Your task to perform on an android device: delete browsing data in the chrome app Image 0: 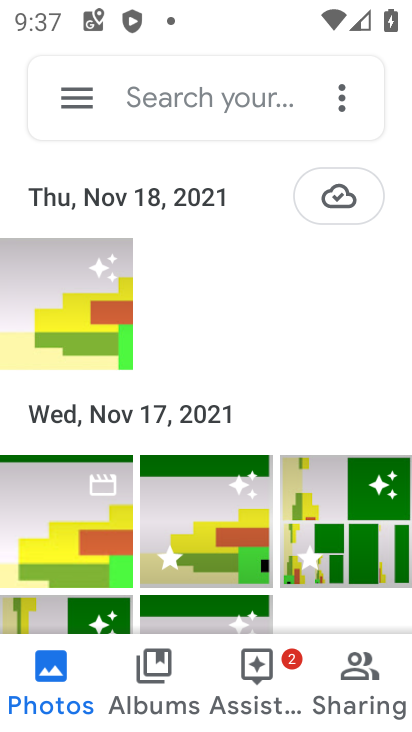
Step 0: press home button
Your task to perform on an android device: delete browsing data in the chrome app Image 1: 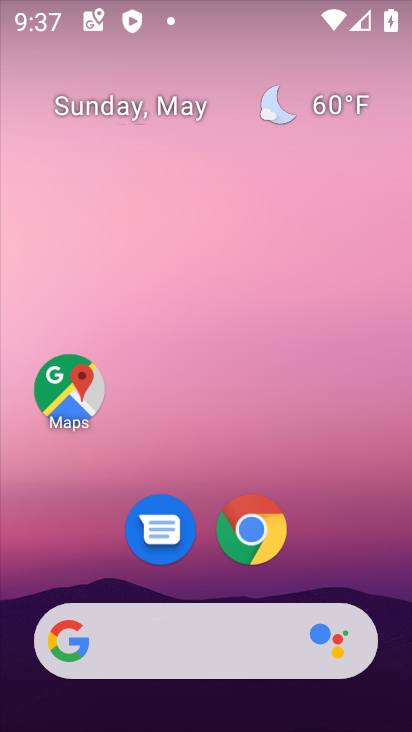
Step 1: drag from (383, 578) to (376, 170)
Your task to perform on an android device: delete browsing data in the chrome app Image 2: 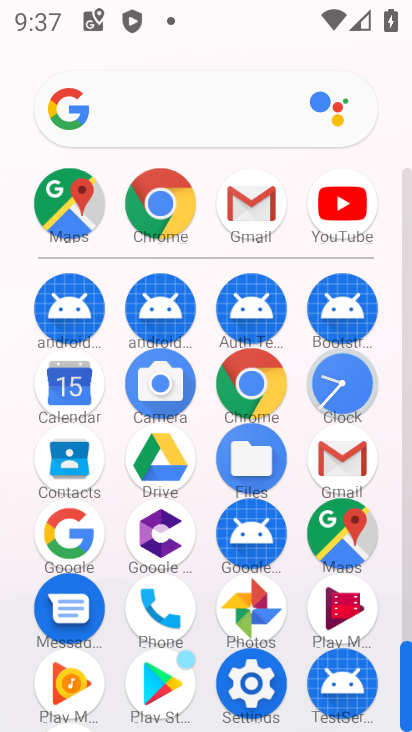
Step 2: click (269, 379)
Your task to perform on an android device: delete browsing data in the chrome app Image 3: 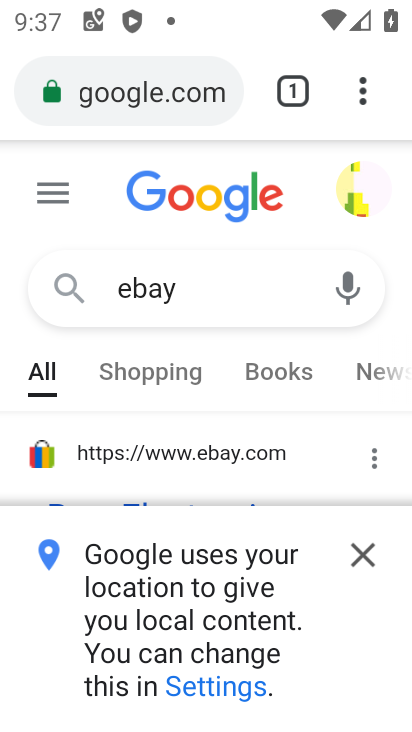
Step 3: click (361, 96)
Your task to perform on an android device: delete browsing data in the chrome app Image 4: 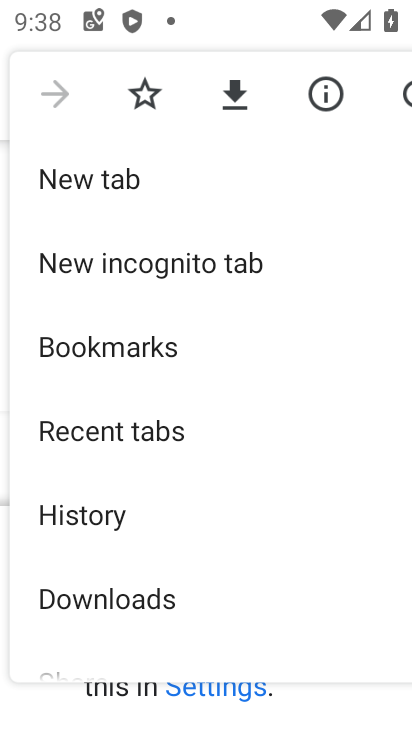
Step 4: drag from (326, 561) to (338, 396)
Your task to perform on an android device: delete browsing data in the chrome app Image 5: 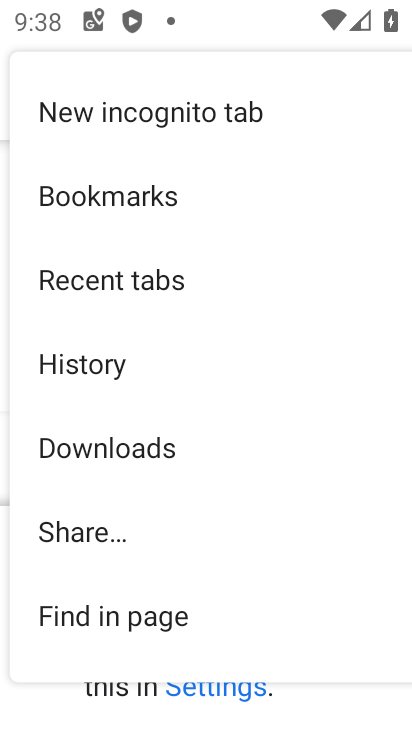
Step 5: drag from (338, 556) to (330, 380)
Your task to perform on an android device: delete browsing data in the chrome app Image 6: 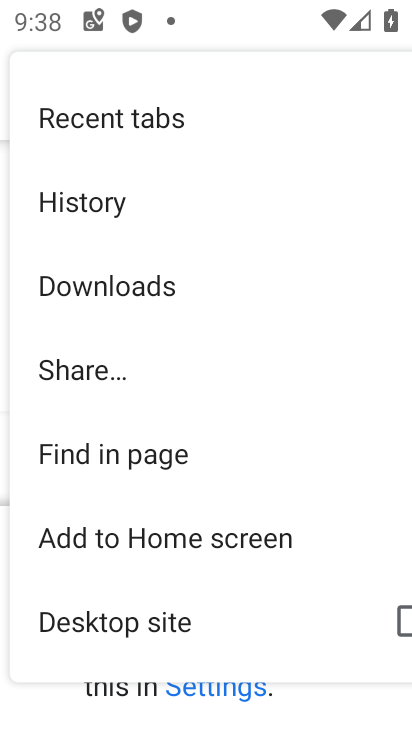
Step 6: drag from (309, 623) to (293, 360)
Your task to perform on an android device: delete browsing data in the chrome app Image 7: 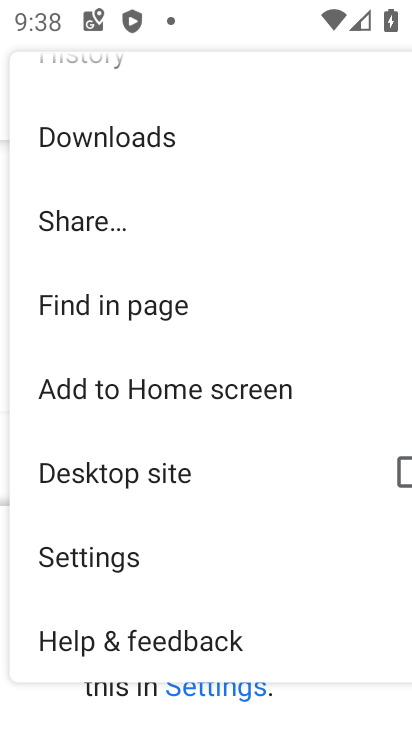
Step 7: click (145, 562)
Your task to perform on an android device: delete browsing data in the chrome app Image 8: 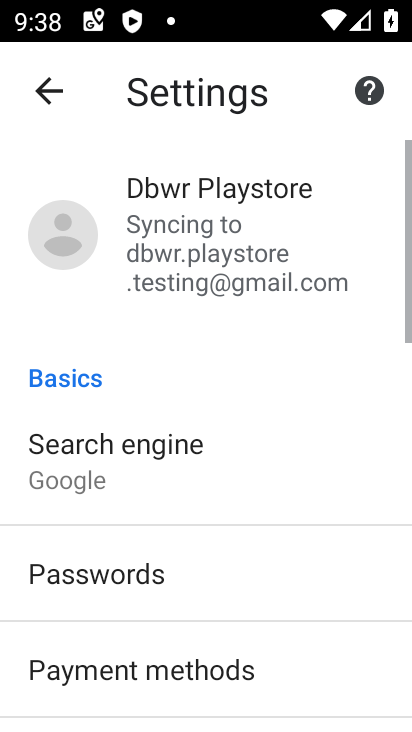
Step 8: drag from (282, 607) to (289, 479)
Your task to perform on an android device: delete browsing data in the chrome app Image 9: 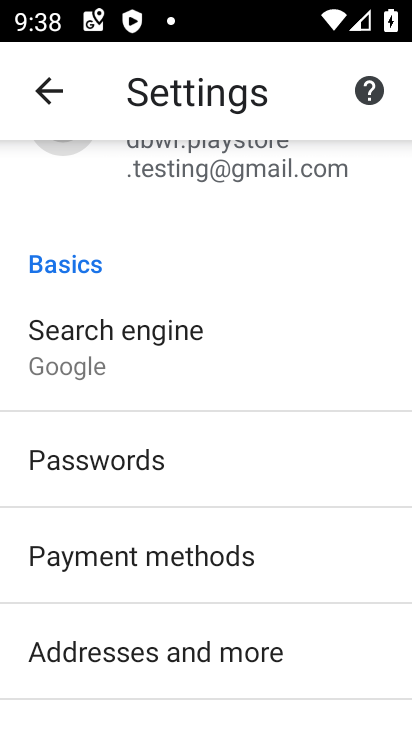
Step 9: drag from (281, 665) to (284, 530)
Your task to perform on an android device: delete browsing data in the chrome app Image 10: 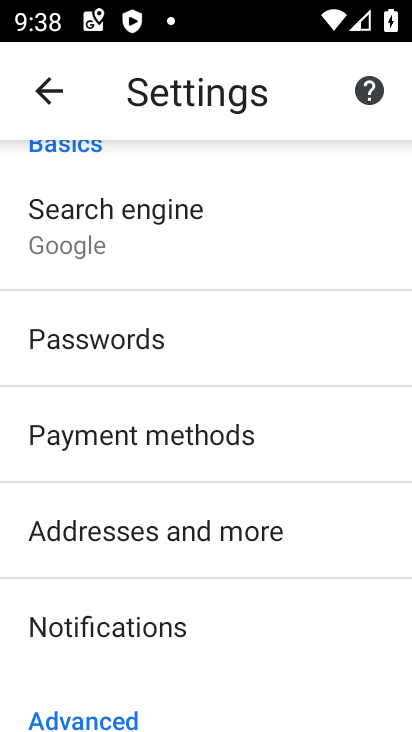
Step 10: drag from (293, 638) to (304, 458)
Your task to perform on an android device: delete browsing data in the chrome app Image 11: 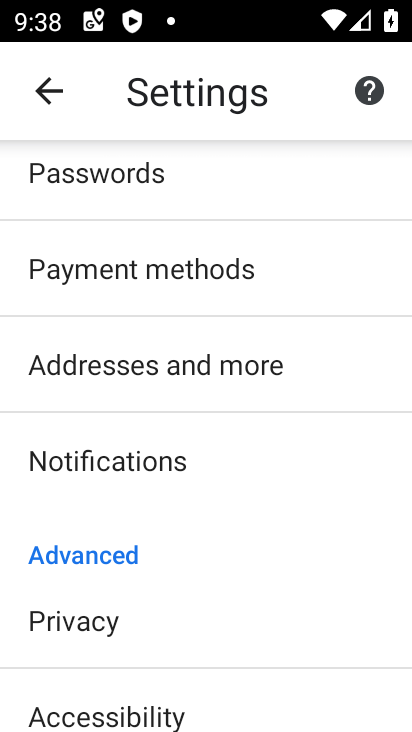
Step 11: drag from (291, 621) to (293, 577)
Your task to perform on an android device: delete browsing data in the chrome app Image 12: 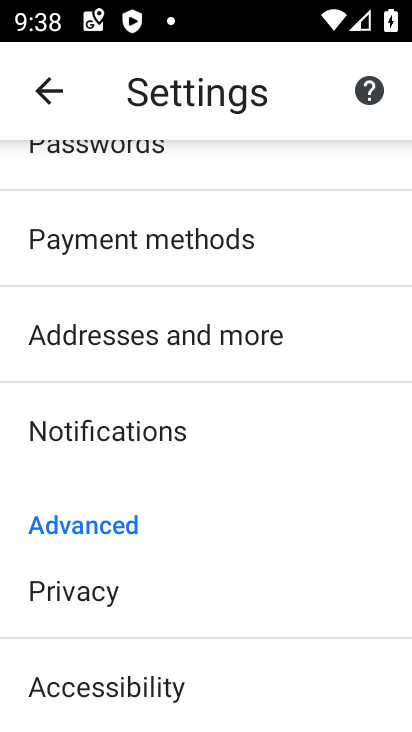
Step 12: drag from (315, 270) to (301, 475)
Your task to perform on an android device: delete browsing data in the chrome app Image 13: 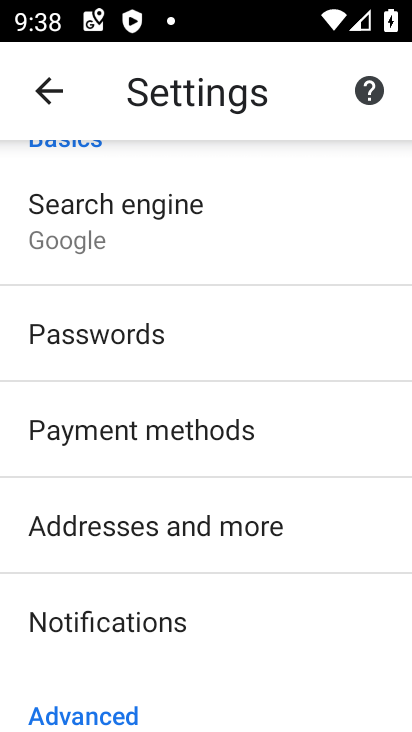
Step 13: drag from (287, 299) to (284, 477)
Your task to perform on an android device: delete browsing data in the chrome app Image 14: 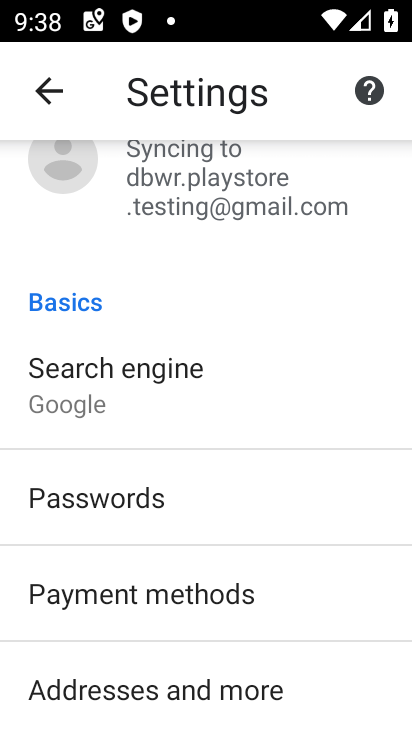
Step 14: drag from (296, 308) to (300, 519)
Your task to perform on an android device: delete browsing data in the chrome app Image 15: 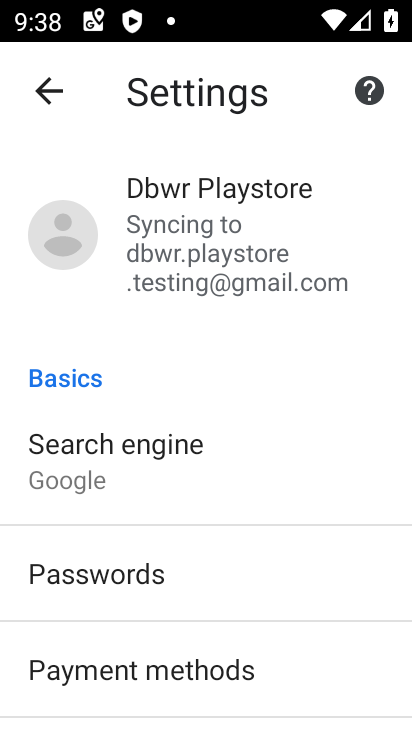
Step 15: drag from (313, 631) to (315, 475)
Your task to perform on an android device: delete browsing data in the chrome app Image 16: 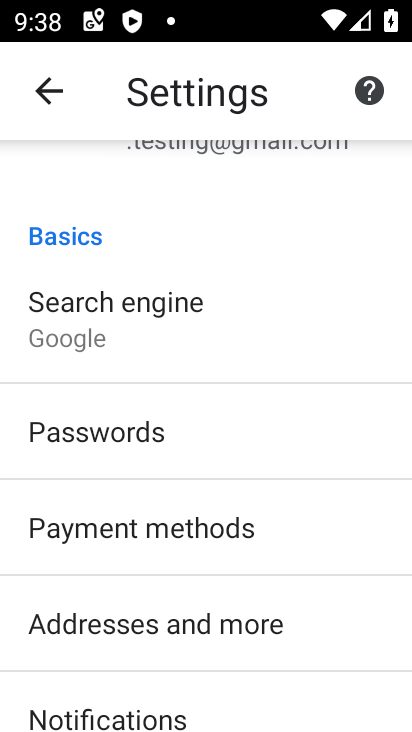
Step 16: drag from (313, 677) to (320, 398)
Your task to perform on an android device: delete browsing data in the chrome app Image 17: 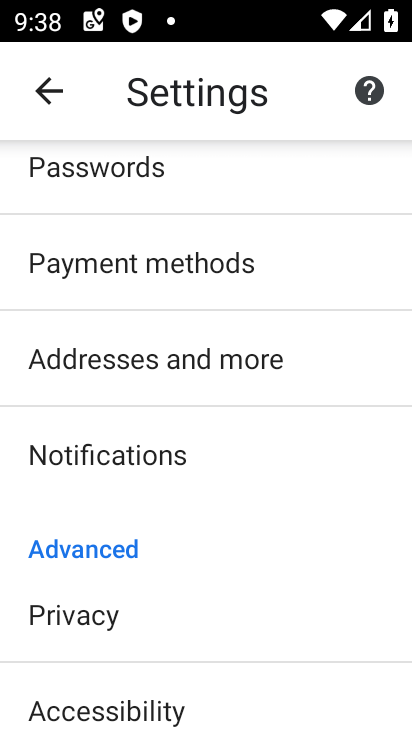
Step 17: click (155, 629)
Your task to perform on an android device: delete browsing data in the chrome app Image 18: 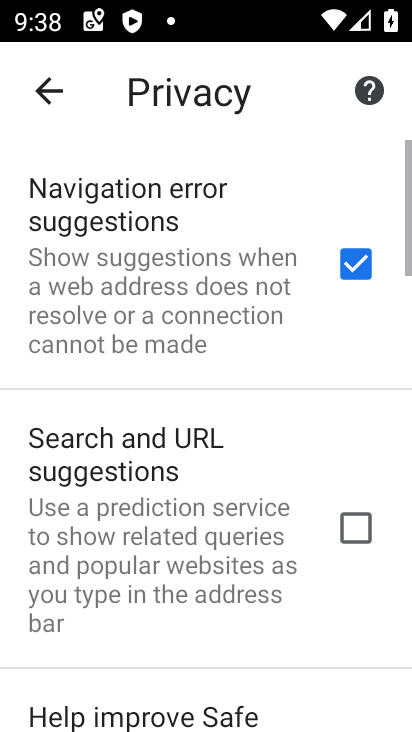
Step 18: drag from (282, 646) to (301, 374)
Your task to perform on an android device: delete browsing data in the chrome app Image 19: 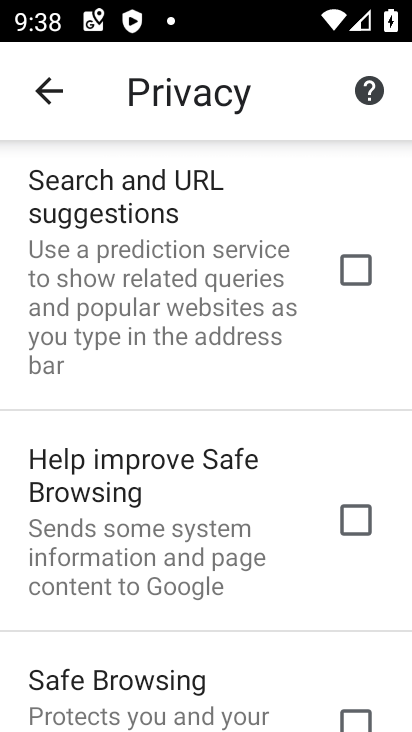
Step 19: drag from (280, 622) to (285, 453)
Your task to perform on an android device: delete browsing data in the chrome app Image 20: 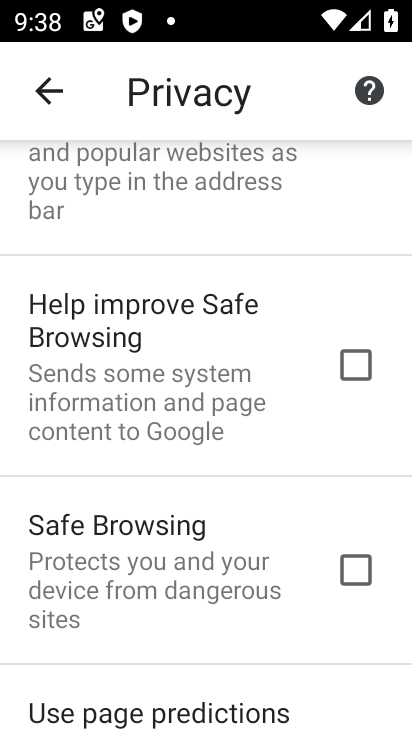
Step 20: drag from (295, 626) to (301, 417)
Your task to perform on an android device: delete browsing data in the chrome app Image 21: 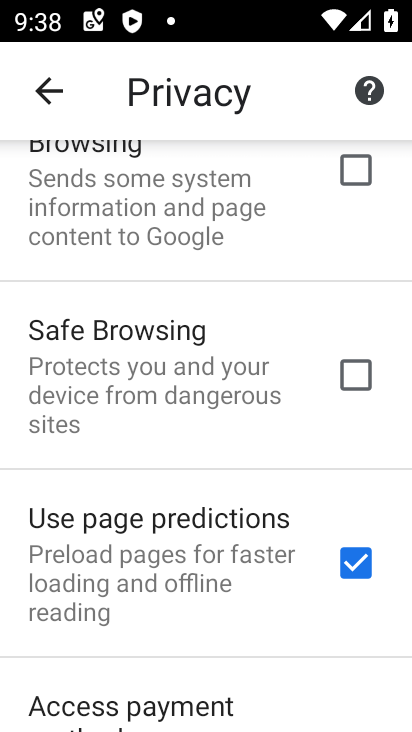
Step 21: drag from (273, 644) to (277, 435)
Your task to perform on an android device: delete browsing data in the chrome app Image 22: 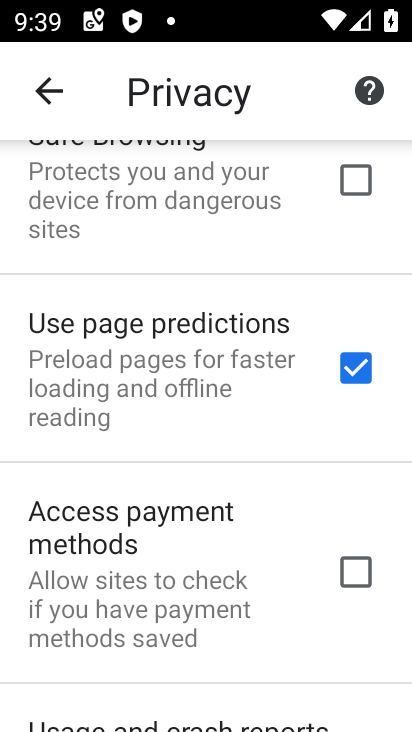
Step 22: drag from (290, 690) to (298, 422)
Your task to perform on an android device: delete browsing data in the chrome app Image 23: 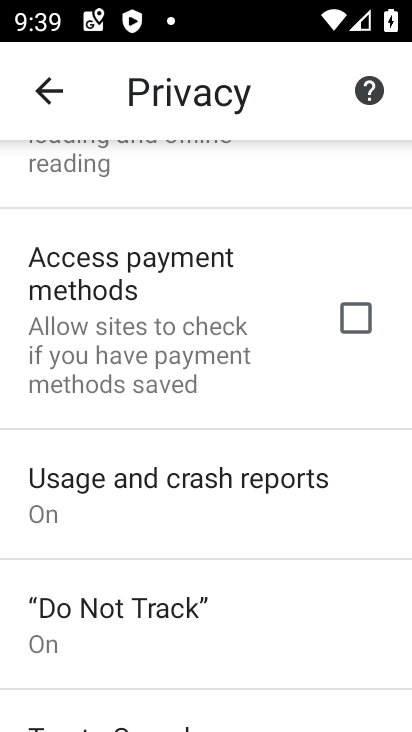
Step 23: drag from (275, 645) to (280, 409)
Your task to perform on an android device: delete browsing data in the chrome app Image 24: 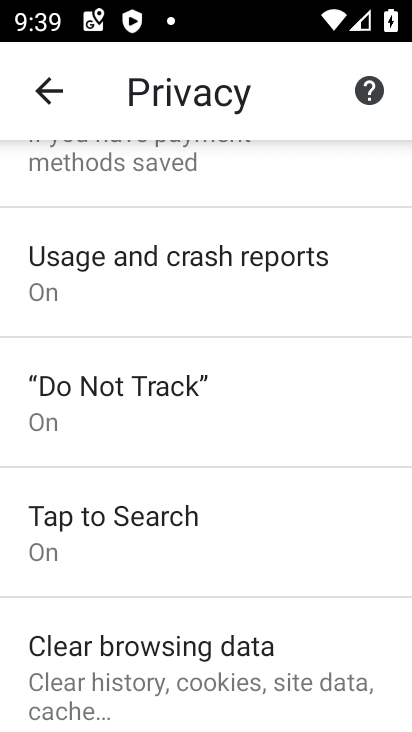
Step 24: click (226, 685)
Your task to perform on an android device: delete browsing data in the chrome app Image 25: 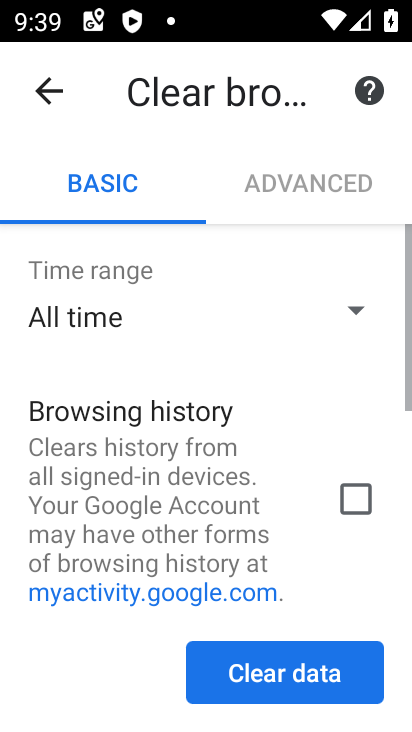
Step 25: click (235, 671)
Your task to perform on an android device: delete browsing data in the chrome app Image 26: 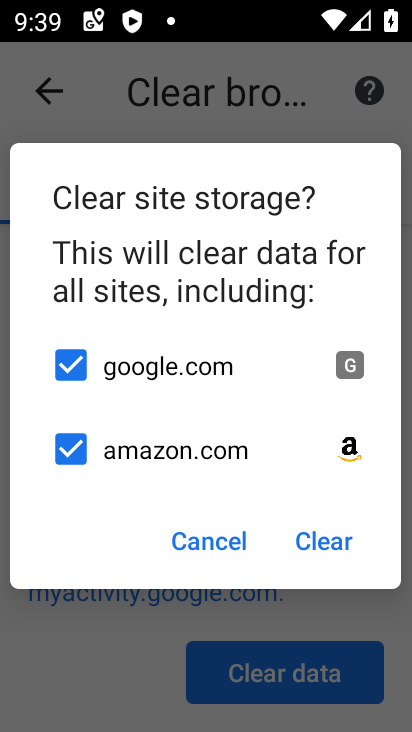
Step 26: click (322, 548)
Your task to perform on an android device: delete browsing data in the chrome app Image 27: 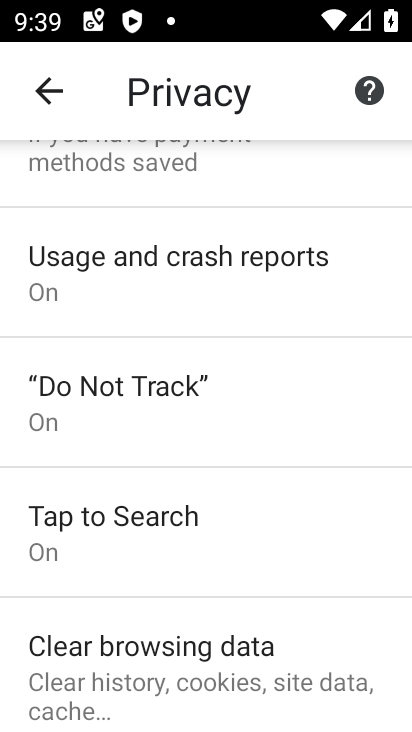
Step 27: task complete